Your task to perform on an android device: Open Chrome and go to the settings page Image 0: 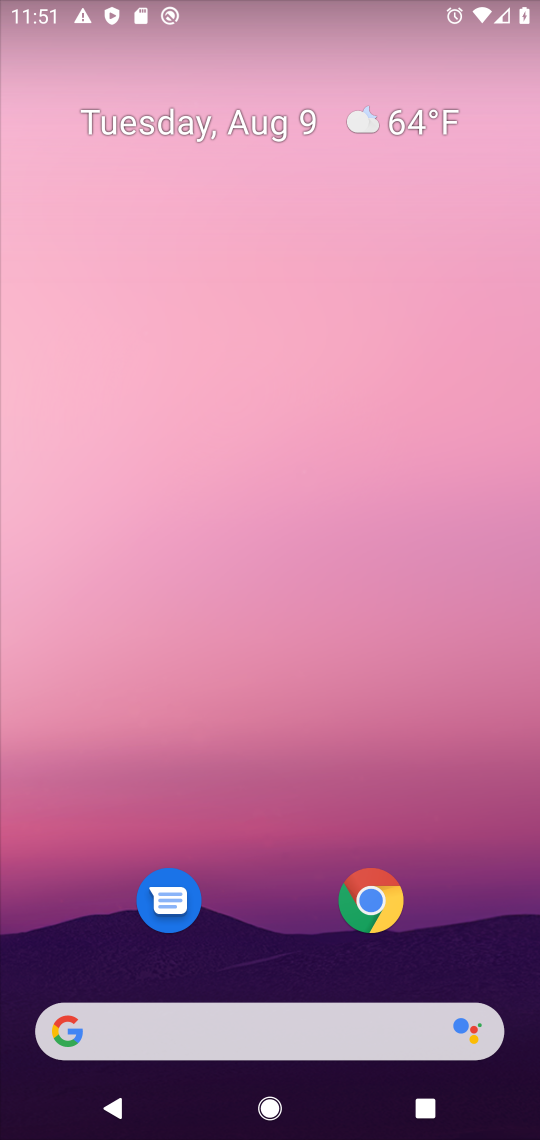
Step 0: click (379, 899)
Your task to perform on an android device: Open Chrome and go to the settings page Image 1: 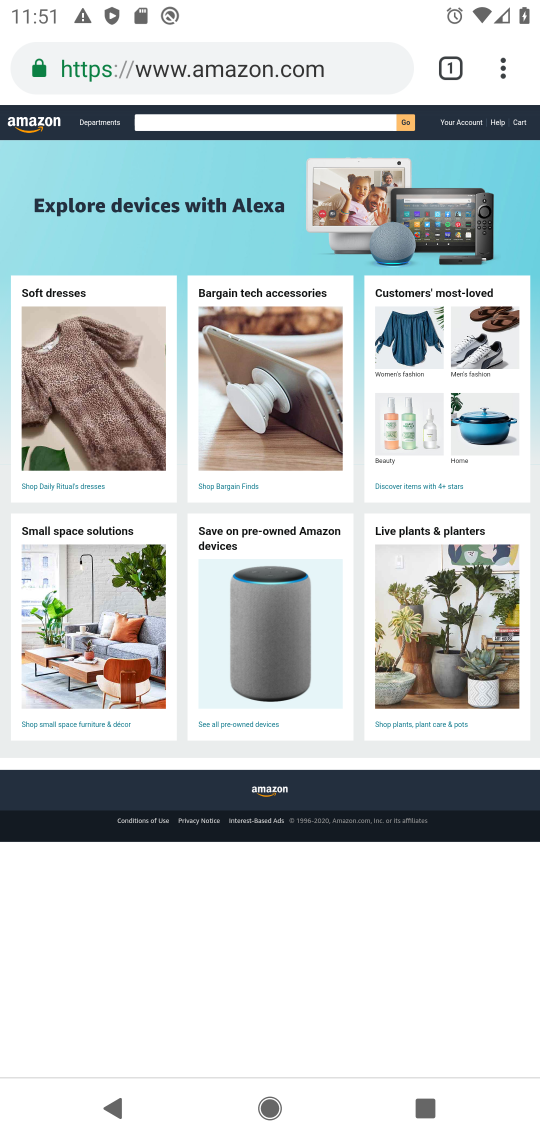
Step 1: click (379, 899)
Your task to perform on an android device: Open Chrome and go to the settings page Image 2: 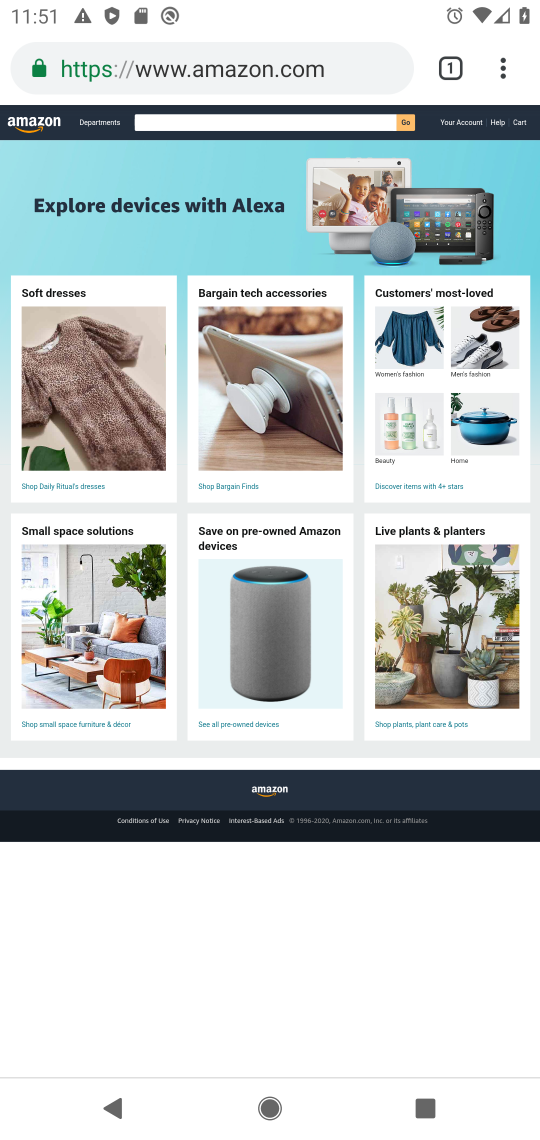
Step 2: click (491, 82)
Your task to perform on an android device: Open Chrome and go to the settings page Image 3: 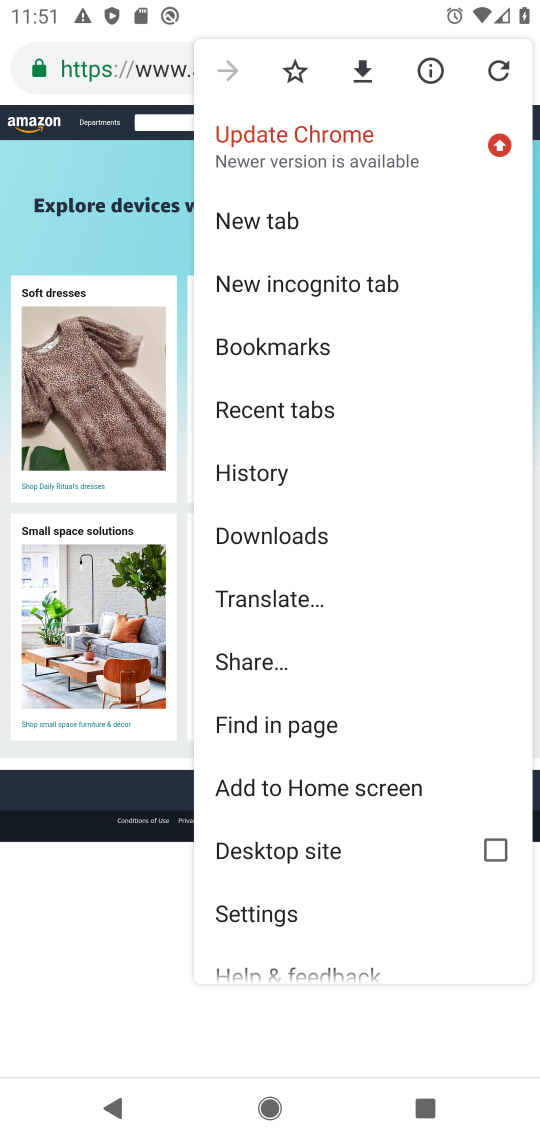
Step 3: click (309, 913)
Your task to perform on an android device: Open Chrome and go to the settings page Image 4: 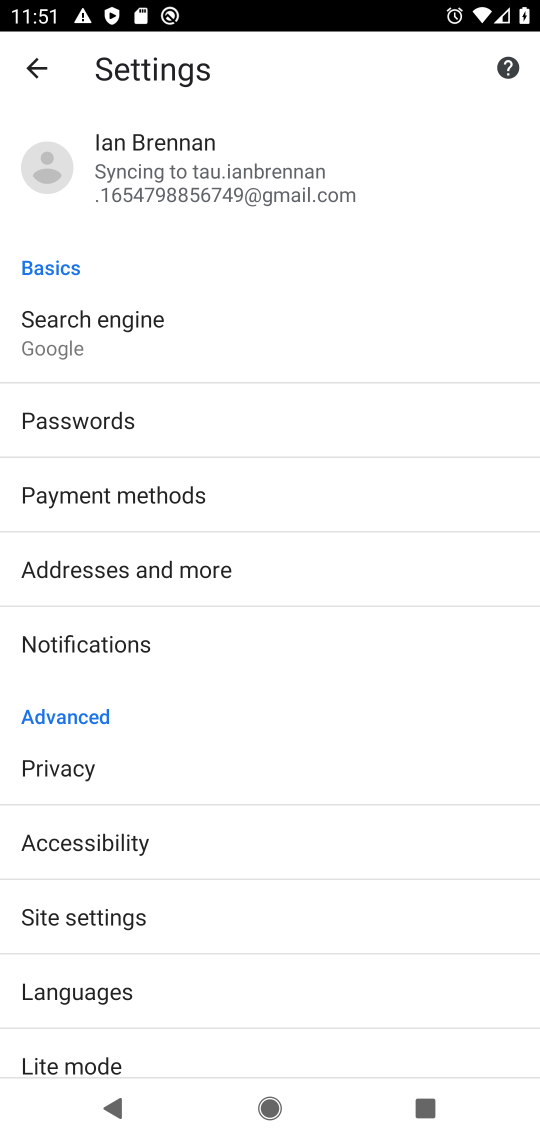
Step 4: task complete